Your task to perform on an android device: star an email in the gmail app Image 0: 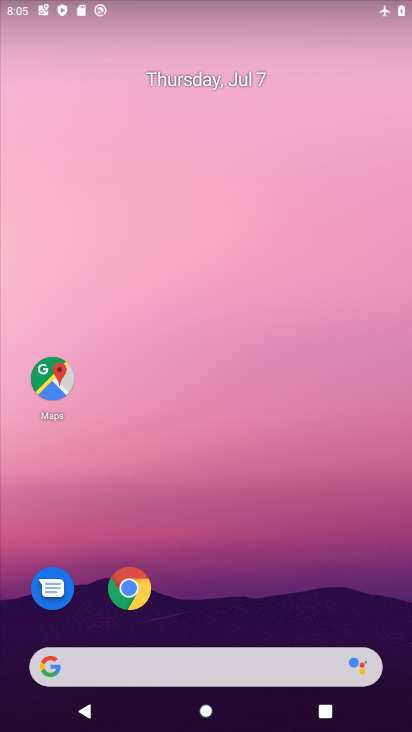
Step 0: drag from (247, 591) to (224, 142)
Your task to perform on an android device: star an email in the gmail app Image 1: 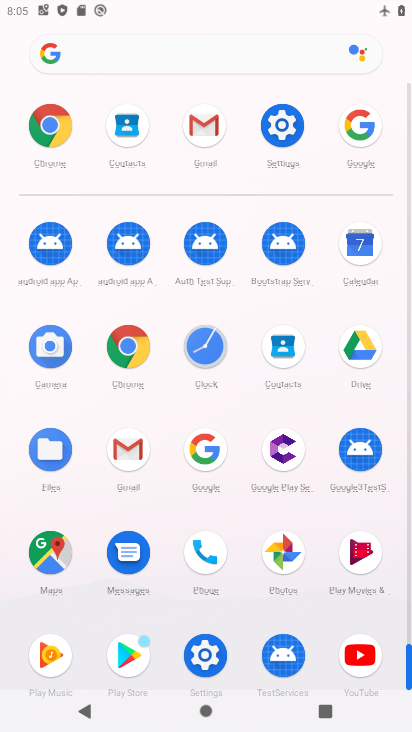
Step 1: click (212, 141)
Your task to perform on an android device: star an email in the gmail app Image 2: 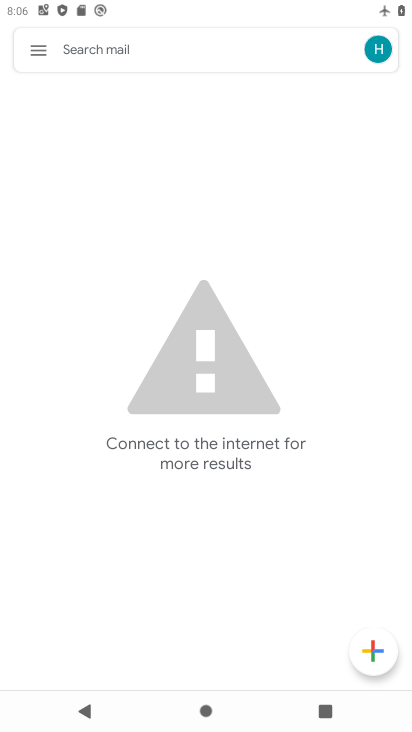
Step 2: task complete